Your task to perform on an android device: show emergency info Image 0: 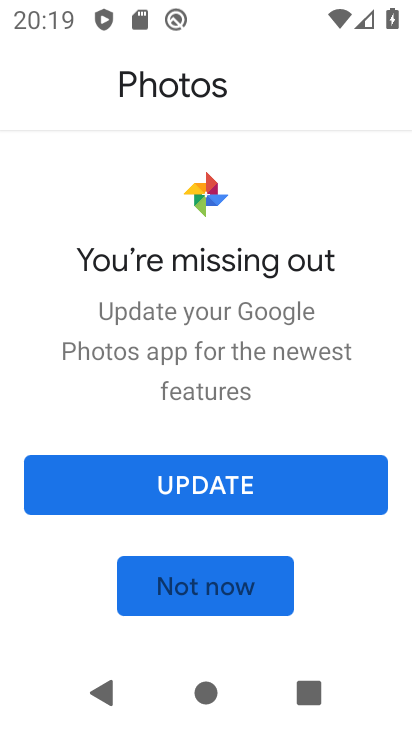
Step 0: press home button
Your task to perform on an android device: show emergency info Image 1: 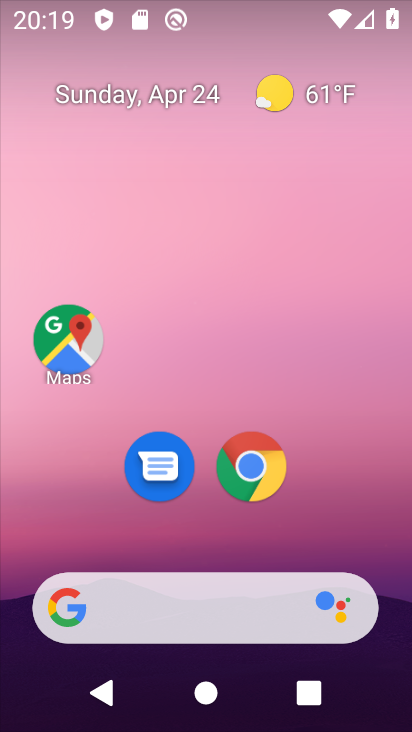
Step 1: drag from (199, 468) to (196, 15)
Your task to perform on an android device: show emergency info Image 2: 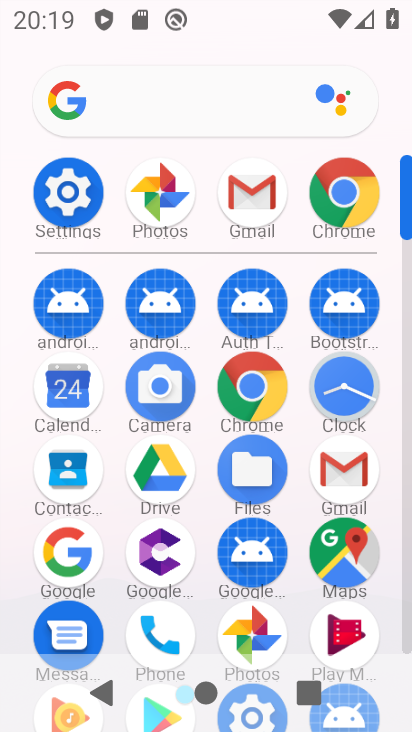
Step 2: click (64, 200)
Your task to perform on an android device: show emergency info Image 3: 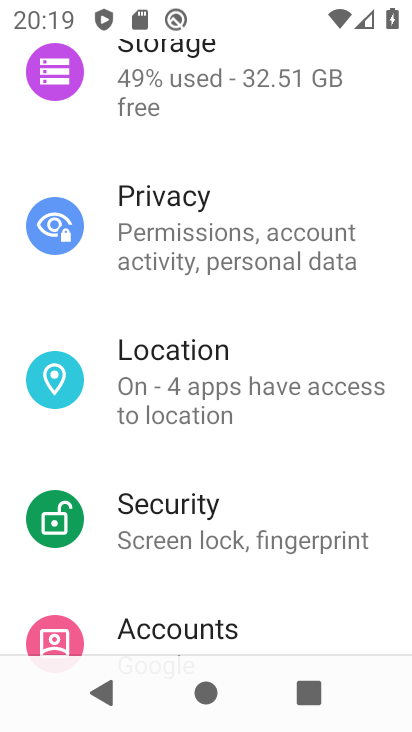
Step 3: click (323, 8)
Your task to perform on an android device: show emergency info Image 4: 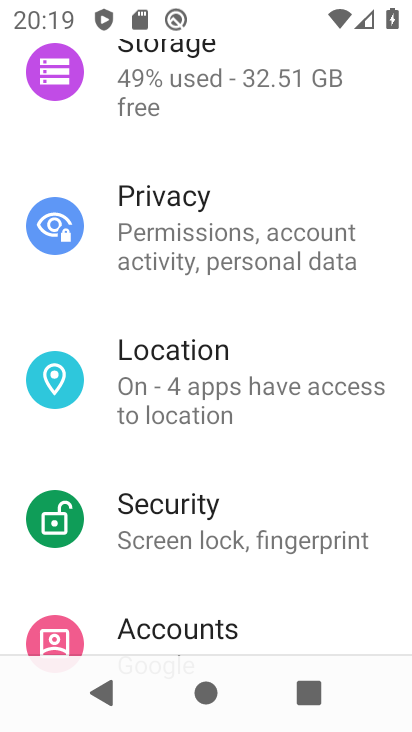
Step 4: drag from (228, 541) to (303, 128)
Your task to perform on an android device: show emergency info Image 5: 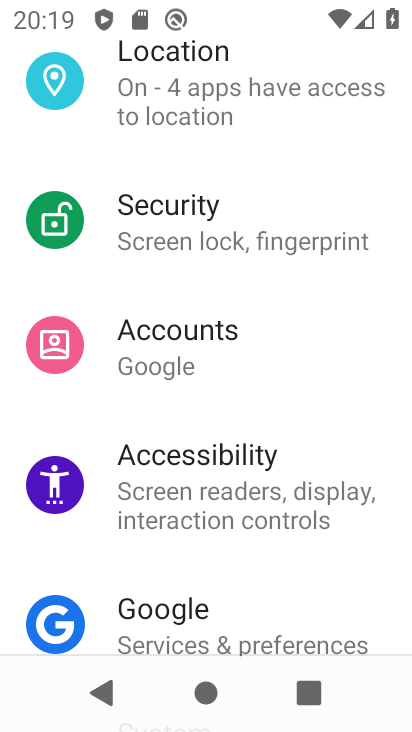
Step 5: drag from (201, 518) to (255, 191)
Your task to perform on an android device: show emergency info Image 6: 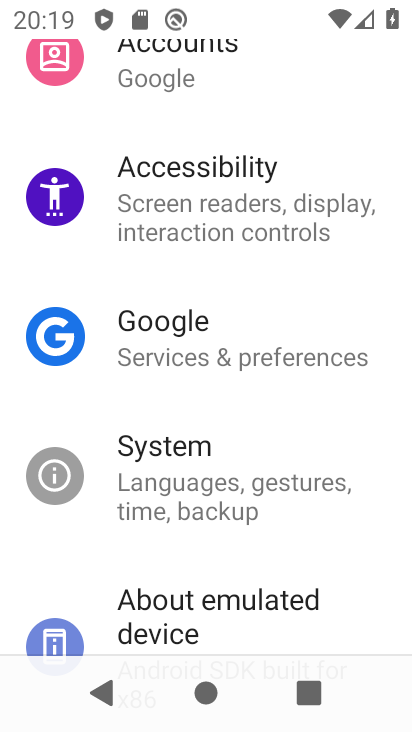
Step 6: drag from (183, 551) to (252, 213)
Your task to perform on an android device: show emergency info Image 7: 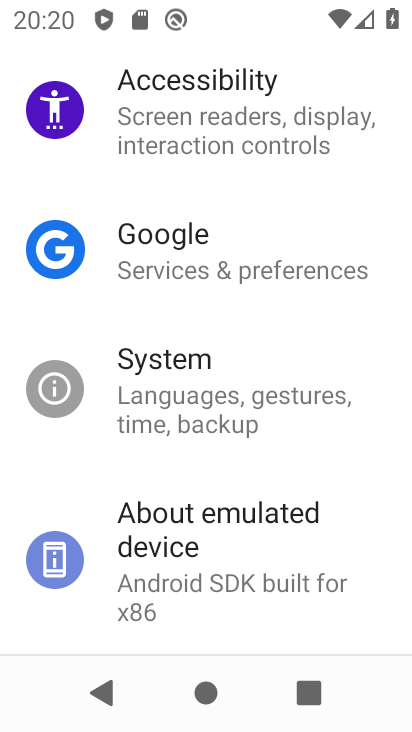
Step 7: click (161, 532)
Your task to perform on an android device: show emergency info Image 8: 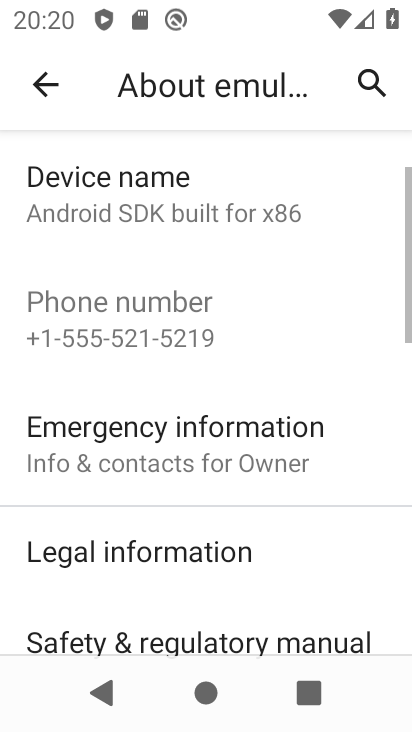
Step 8: click (156, 453)
Your task to perform on an android device: show emergency info Image 9: 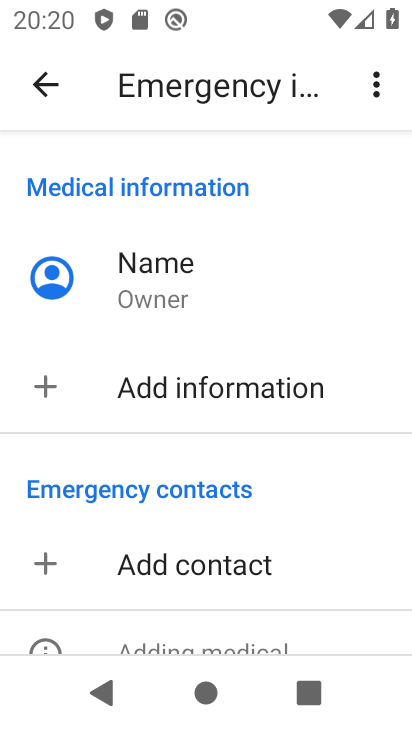
Step 9: task complete